Your task to perform on an android device: Open Google Maps Image 0: 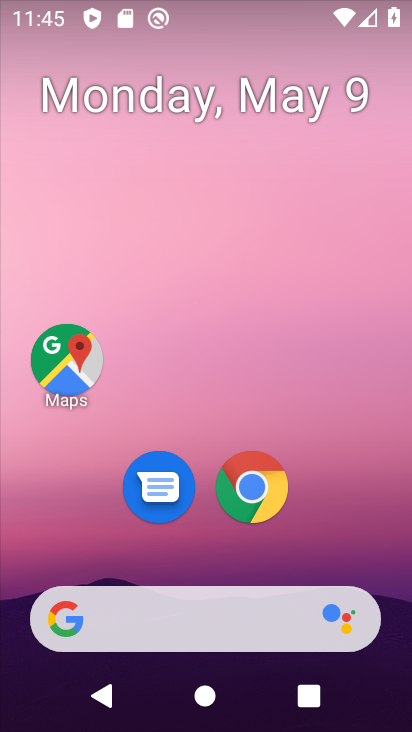
Step 0: click (71, 368)
Your task to perform on an android device: Open Google Maps Image 1: 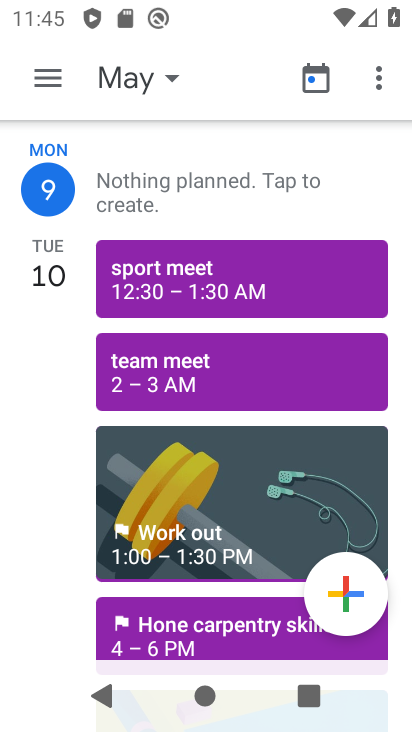
Step 1: press back button
Your task to perform on an android device: Open Google Maps Image 2: 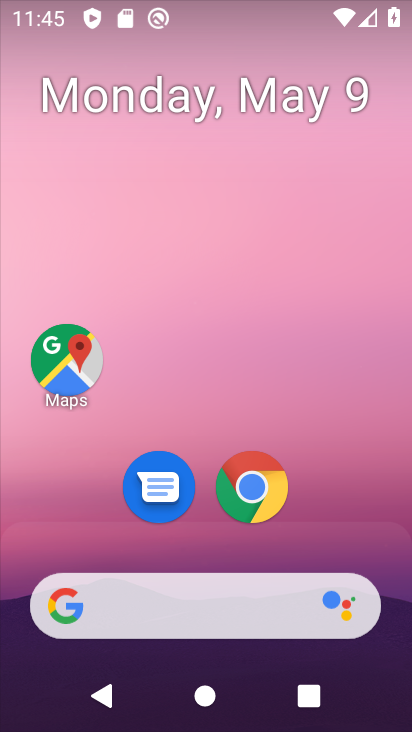
Step 2: click (56, 365)
Your task to perform on an android device: Open Google Maps Image 3: 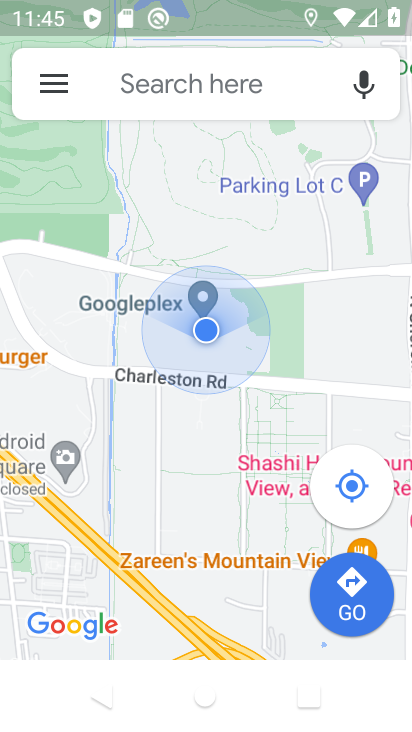
Step 3: task complete